Your task to perform on an android device: open app "LiveIn - Share Your Moment" Image 0: 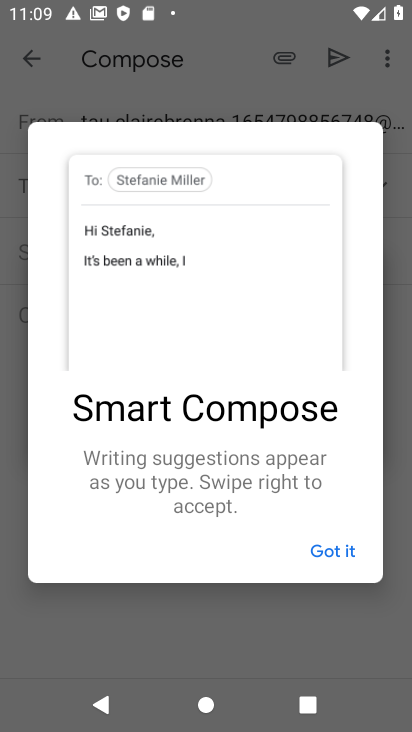
Step 0: press home button
Your task to perform on an android device: open app "LiveIn - Share Your Moment" Image 1: 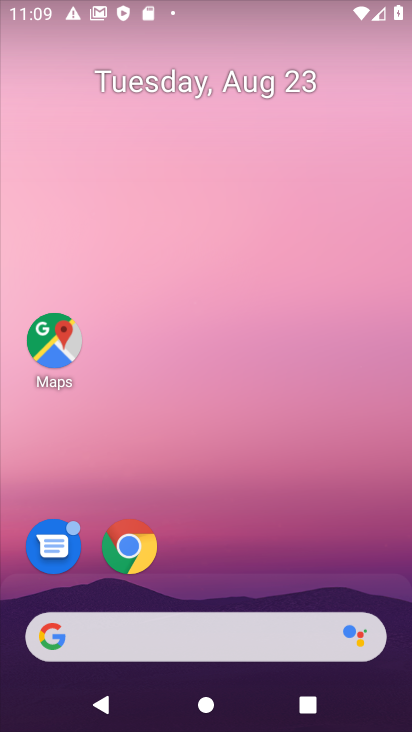
Step 1: drag from (155, 612) to (247, 184)
Your task to perform on an android device: open app "LiveIn - Share Your Moment" Image 2: 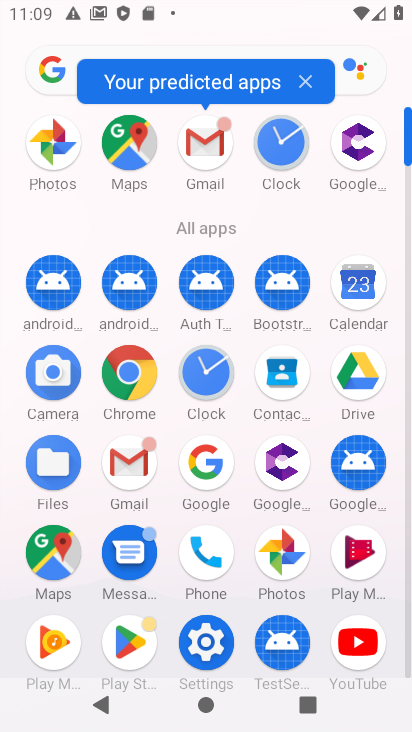
Step 2: click (136, 643)
Your task to perform on an android device: open app "LiveIn - Share Your Moment" Image 3: 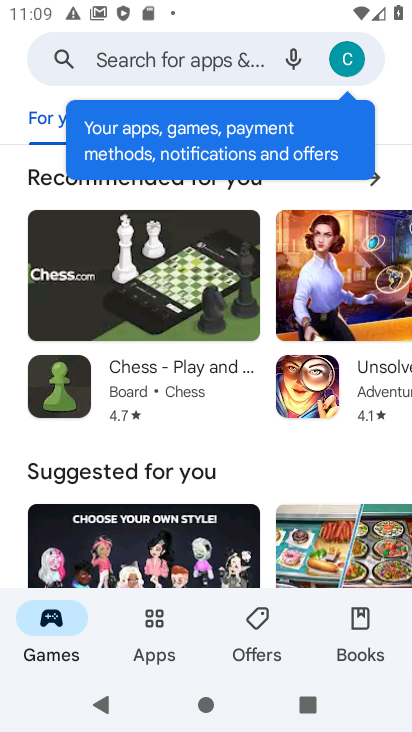
Step 3: click (187, 61)
Your task to perform on an android device: open app "LiveIn - Share Your Moment" Image 4: 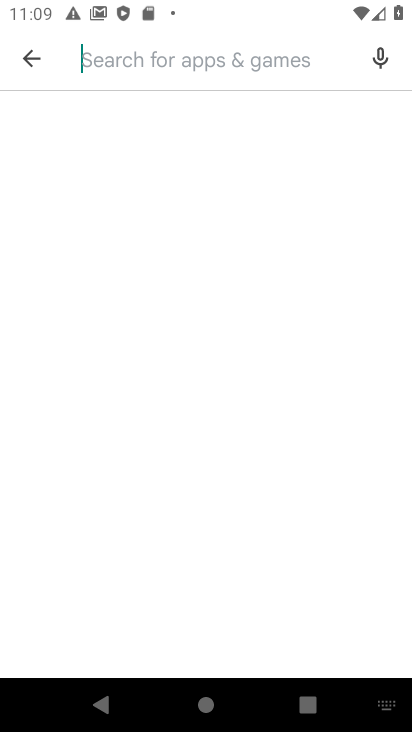
Step 4: type "LiveIn "
Your task to perform on an android device: open app "LiveIn - Share Your Moment" Image 5: 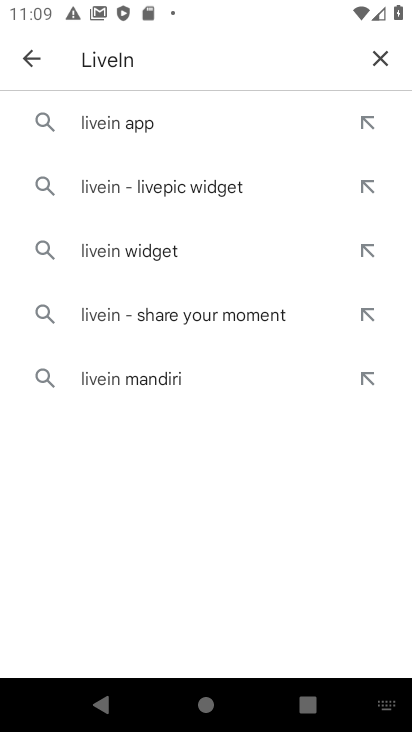
Step 5: click (140, 125)
Your task to perform on an android device: open app "LiveIn - Share Your Moment" Image 6: 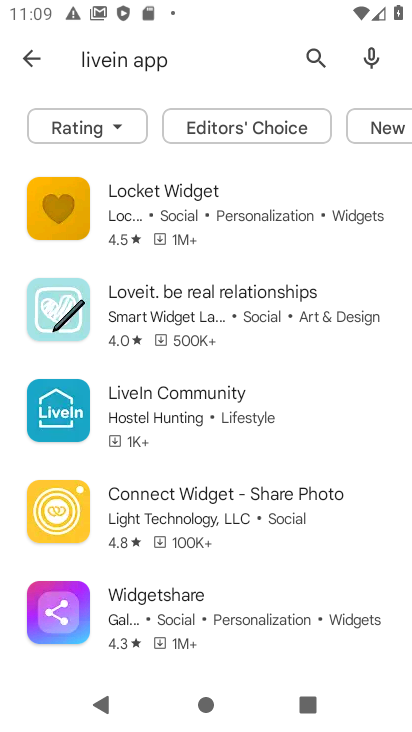
Step 6: click (208, 407)
Your task to perform on an android device: open app "LiveIn - Share Your Moment" Image 7: 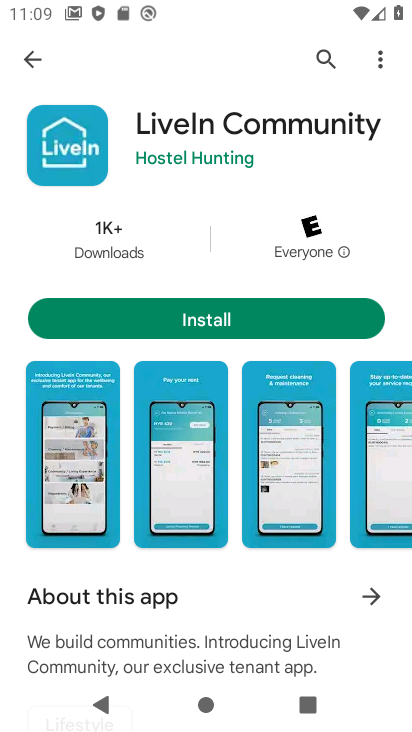
Step 7: click (125, 315)
Your task to perform on an android device: open app "LiveIn - Share Your Moment" Image 8: 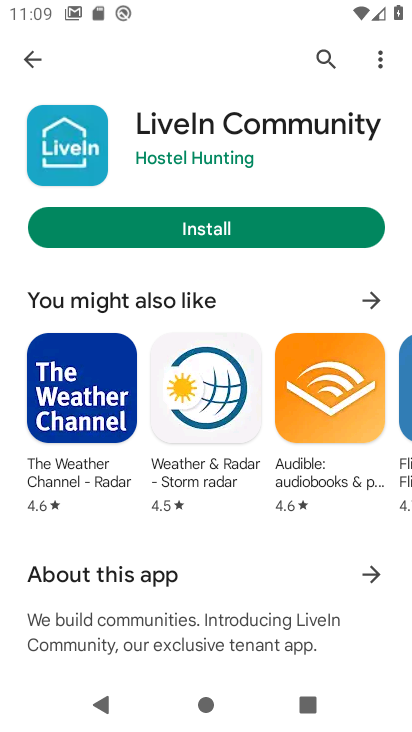
Step 8: click (180, 231)
Your task to perform on an android device: open app "LiveIn - Share Your Moment" Image 9: 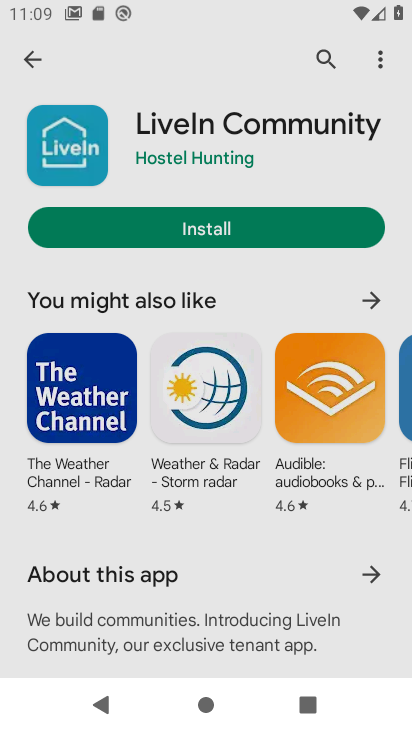
Step 9: click (185, 224)
Your task to perform on an android device: open app "LiveIn - Share Your Moment" Image 10: 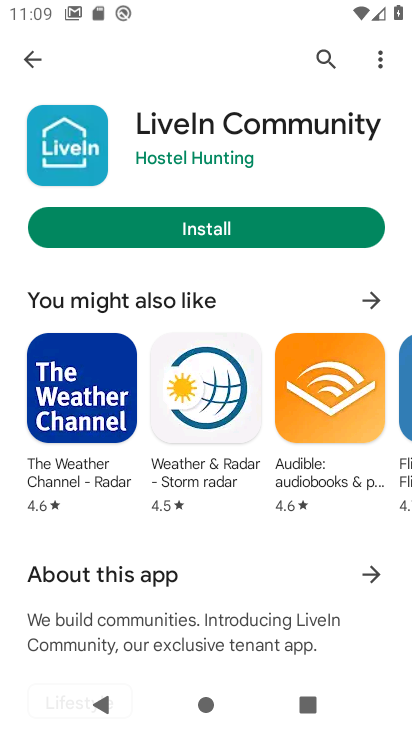
Step 10: click (185, 224)
Your task to perform on an android device: open app "LiveIn - Share Your Moment" Image 11: 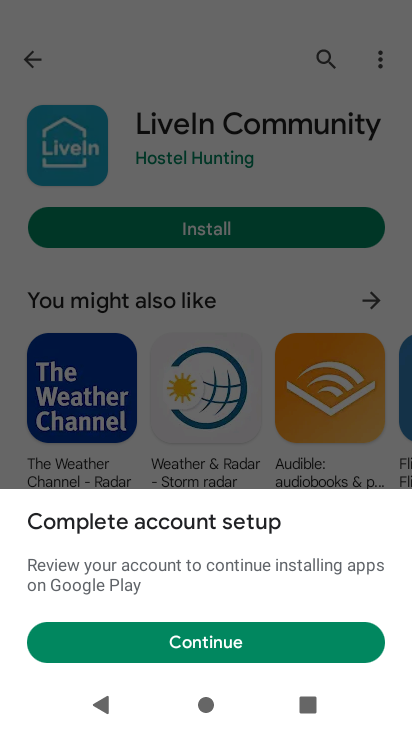
Step 11: task complete